Your task to perform on an android device: turn on sleep mode Image 0: 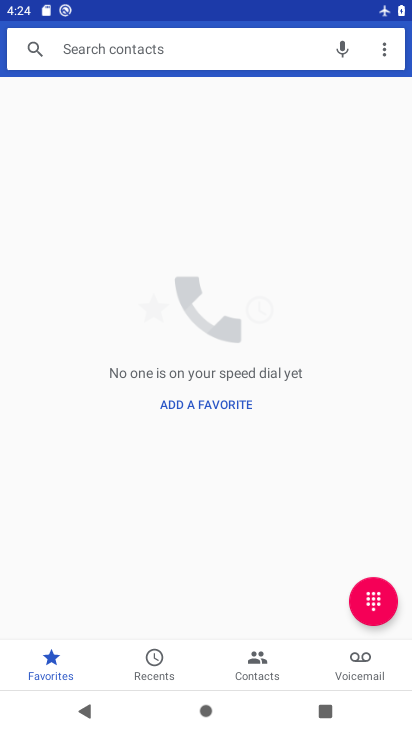
Step 0: press home button
Your task to perform on an android device: turn on sleep mode Image 1: 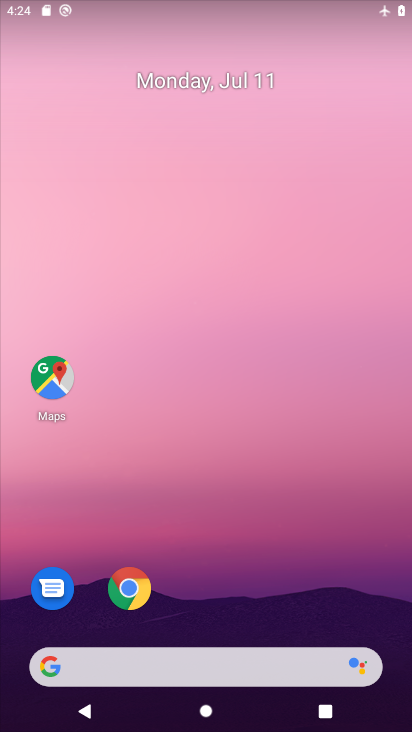
Step 1: drag from (374, 611) to (391, 232)
Your task to perform on an android device: turn on sleep mode Image 2: 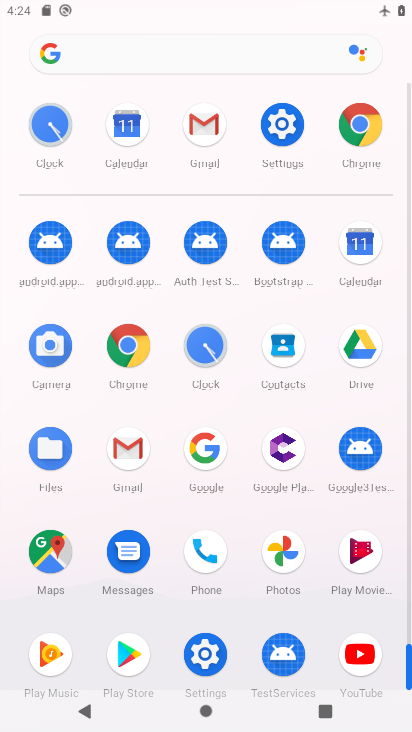
Step 2: click (278, 139)
Your task to perform on an android device: turn on sleep mode Image 3: 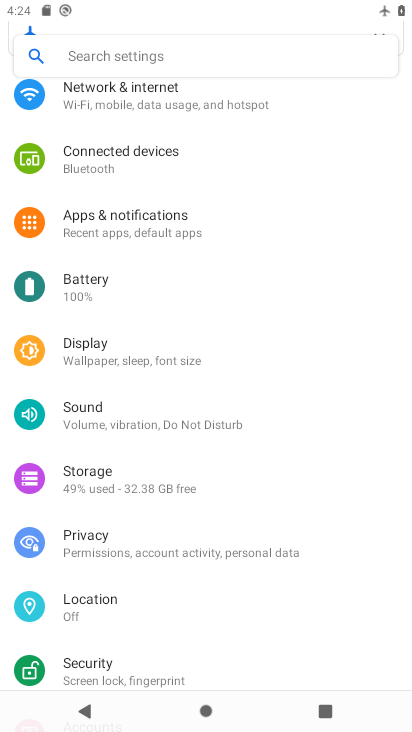
Step 3: drag from (331, 367) to (330, 290)
Your task to perform on an android device: turn on sleep mode Image 4: 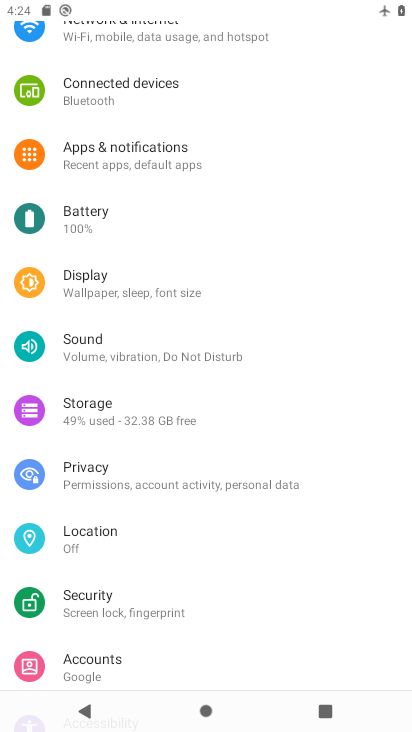
Step 4: drag from (334, 366) to (324, 298)
Your task to perform on an android device: turn on sleep mode Image 5: 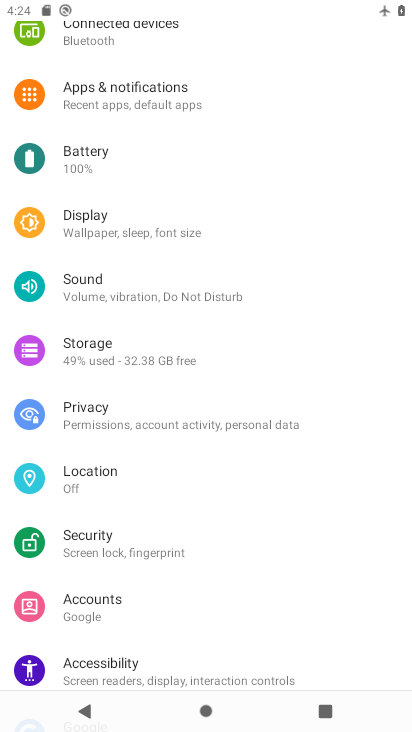
Step 5: click (231, 234)
Your task to perform on an android device: turn on sleep mode Image 6: 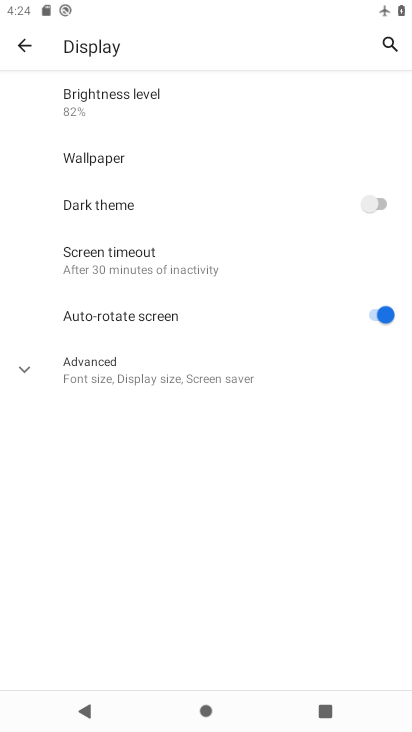
Step 6: click (221, 365)
Your task to perform on an android device: turn on sleep mode Image 7: 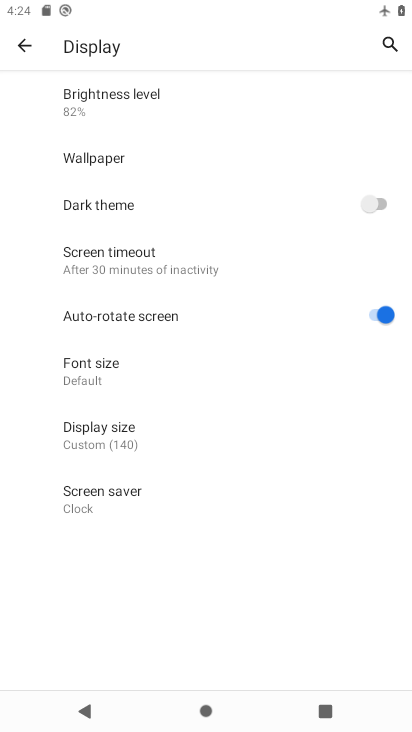
Step 7: task complete